Your task to perform on an android device: Clear the shopping cart on bestbuy.com. Image 0: 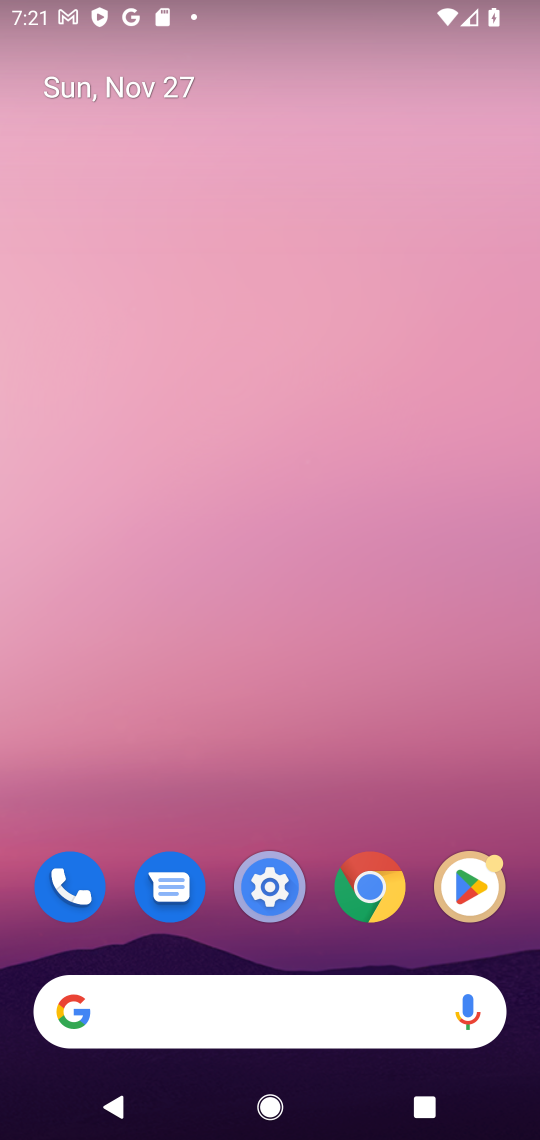
Step 0: press home button
Your task to perform on an android device: Clear the shopping cart on bestbuy.com. Image 1: 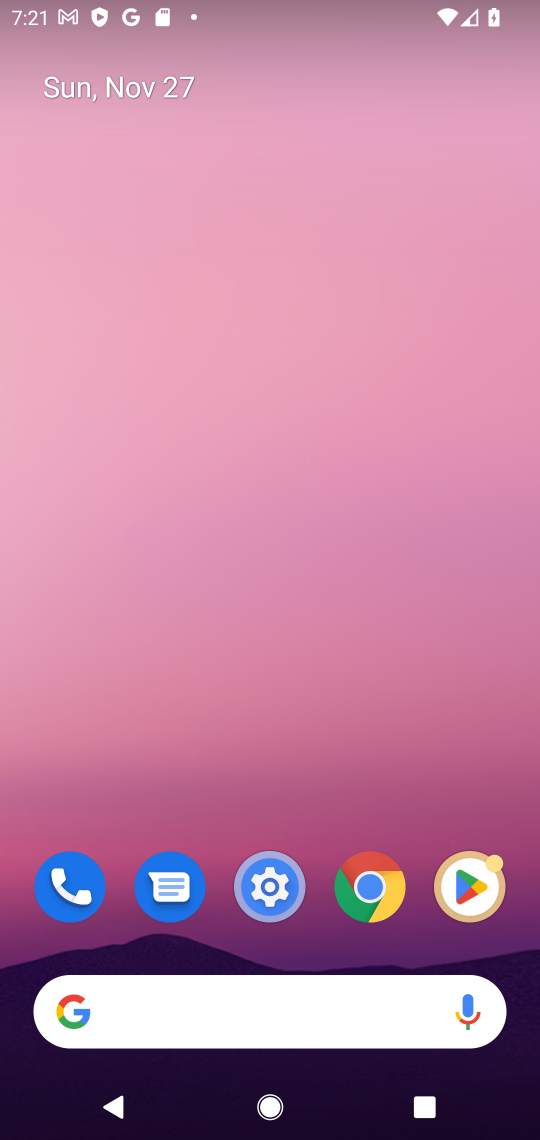
Step 1: click (332, 1004)
Your task to perform on an android device: Clear the shopping cart on bestbuy.com. Image 2: 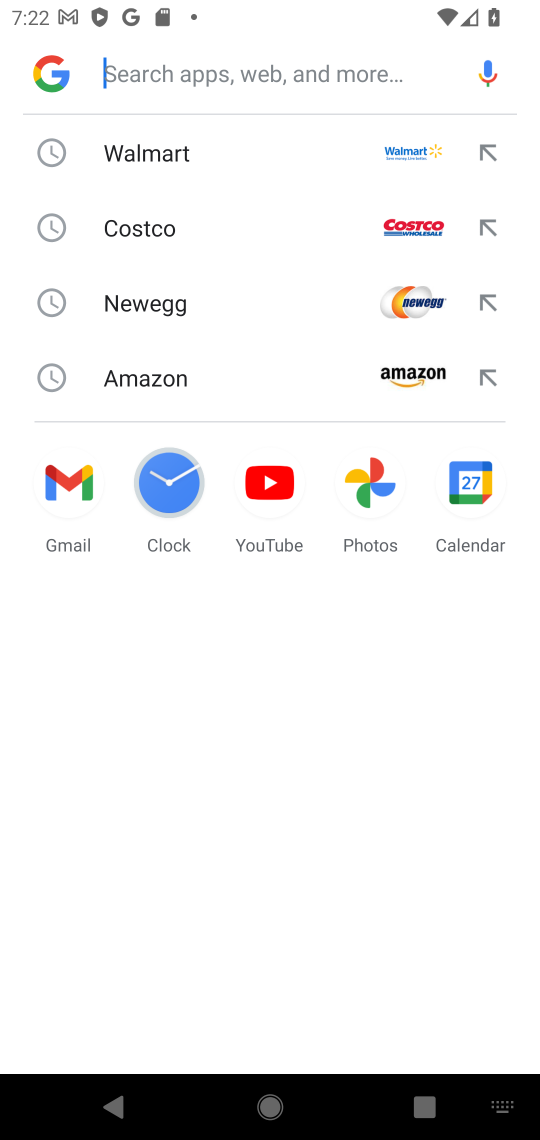
Step 2: type "bestbuy"
Your task to perform on an android device: Clear the shopping cart on bestbuy.com. Image 3: 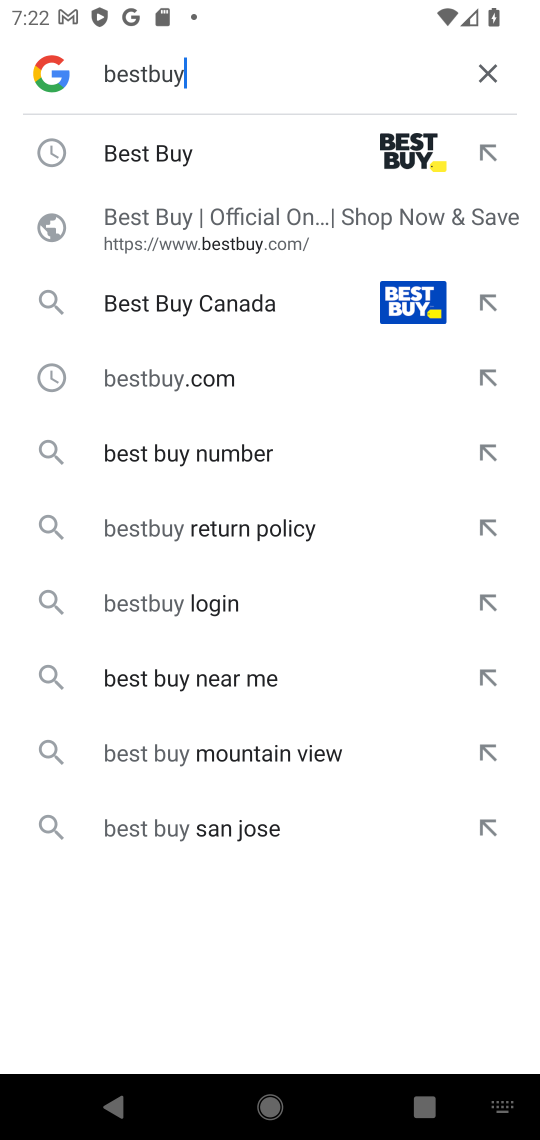
Step 3: click (302, 130)
Your task to perform on an android device: Clear the shopping cart on bestbuy.com. Image 4: 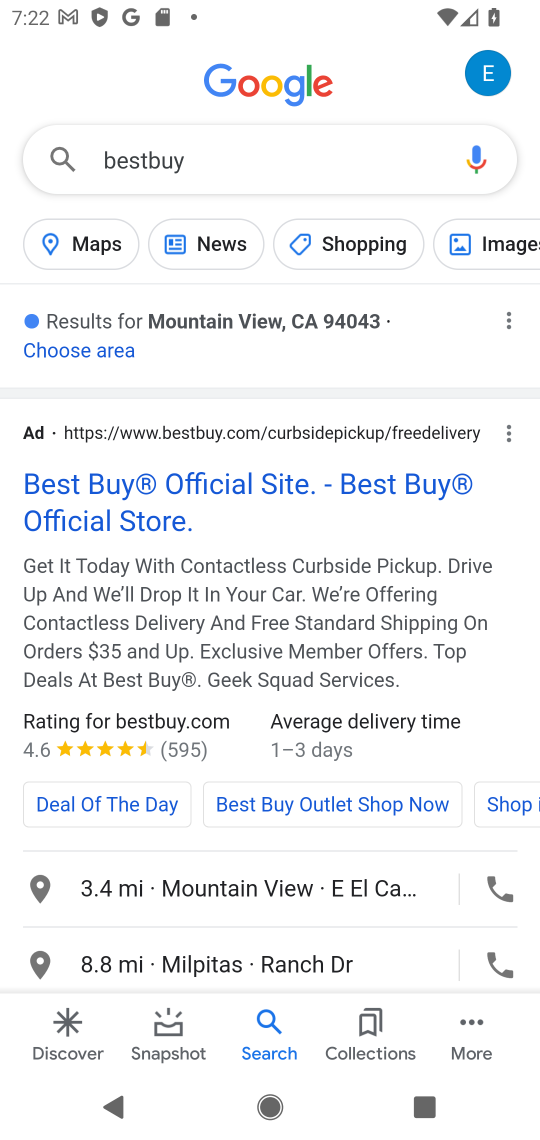
Step 4: click (194, 472)
Your task to perform on an android device: Clear the shopping cart on bestbuy.com. Image 5: 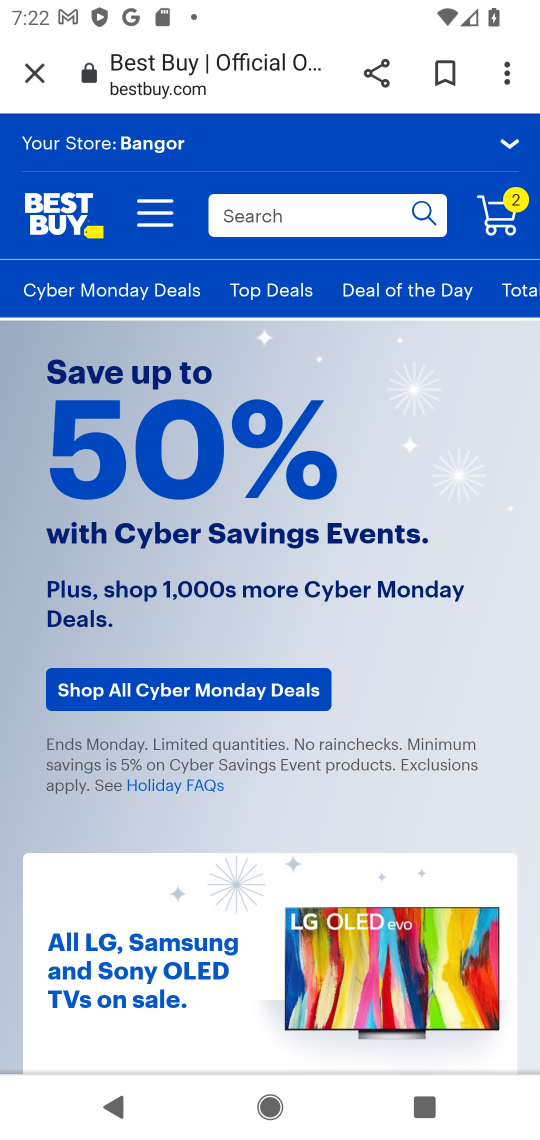
Step 5: task complete